Your task to perform on an android device: Open Google Chrome Image 0: 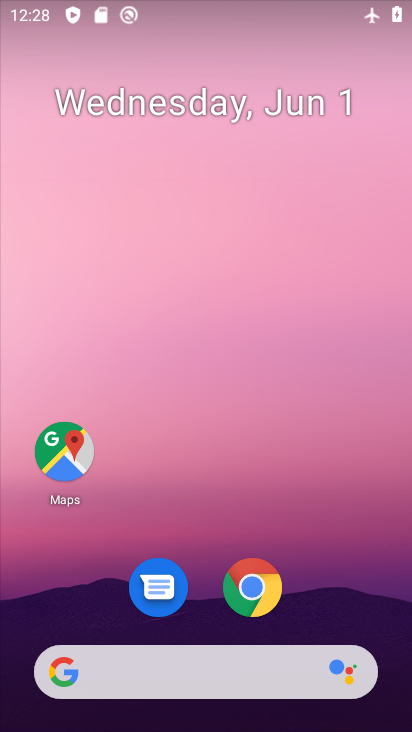
Step 0: click (256, 588)
Your task to perform on an android device: Open Google Chrome Image 1: 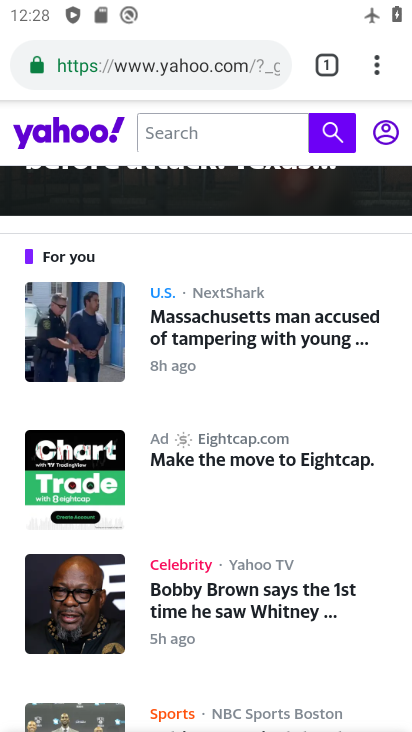
Step 1: task complete